Your task to perform on an android device: What's on my calendar tomorrow? Image 0: 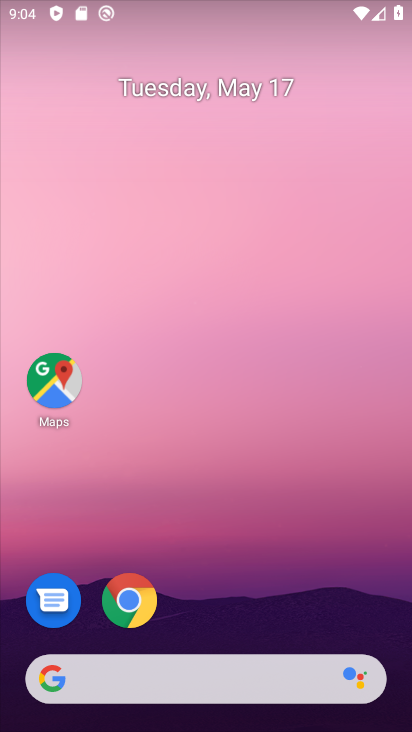
Step 0: click (266, 194)
Your task to perform on an android device: What's on my calendar tomorrow? Image 1: 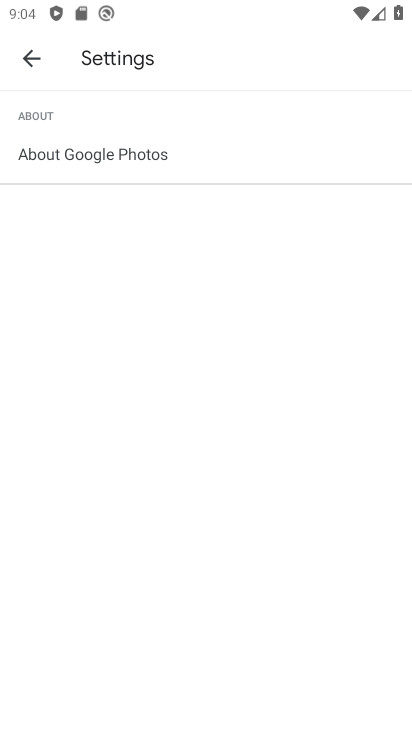
Step 1: press home button
Your task to perform on an android device: What's on my calendar tomorrow? Image 2: 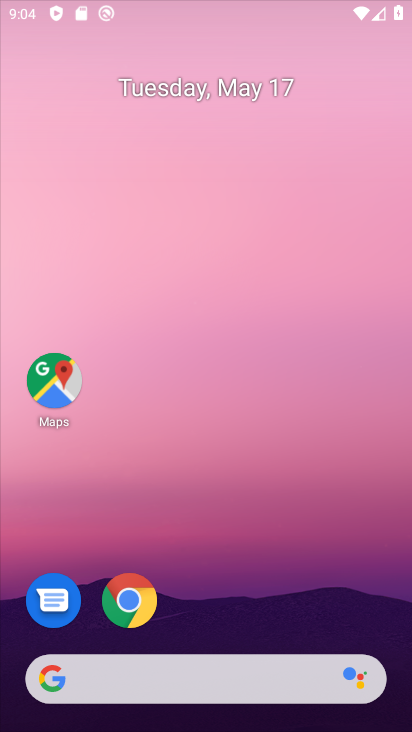
Step 2: drag from (149, 539) to (42, 1)
Your task to perform on an android device: What's on my calendar tomorrow? Image 3: 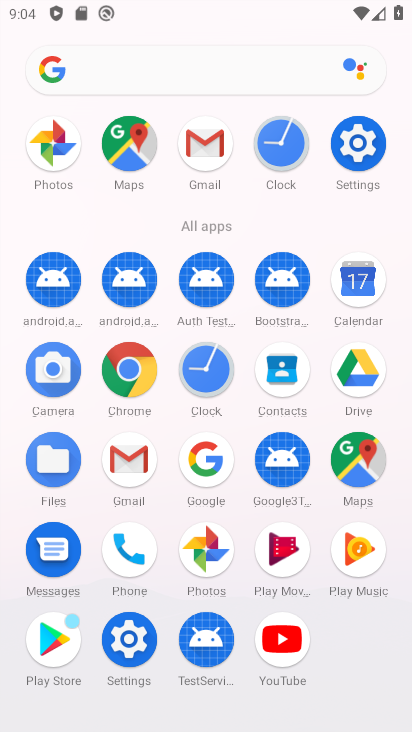
Step 3: click (362, 277)
Your task to perform on an android device: What's on my calendar tomorrow? Image 4: 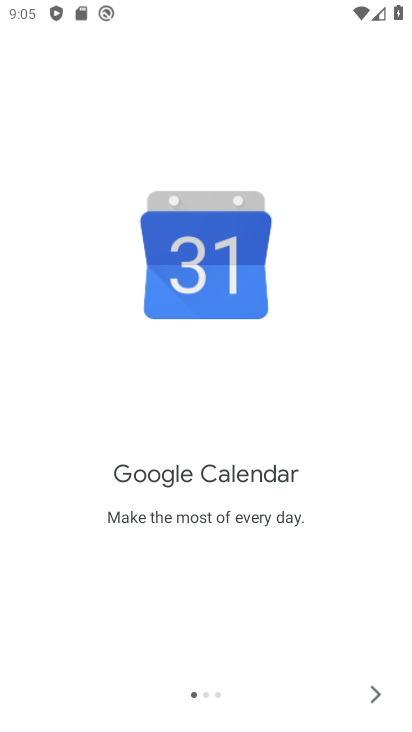
Step 4: click (361, 692)
Your task to perform on an android device: What's on my calendar tomorrow? Image 5: 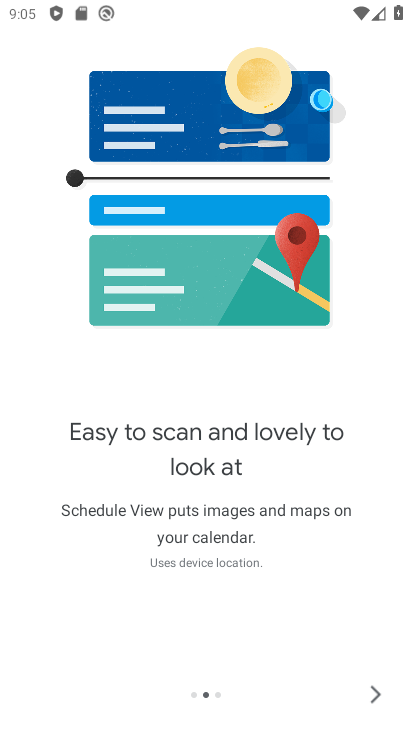
Step 5: click (363, 687)
Your task to perform on an android device: What's on my calendar tomorrow? Image 6: 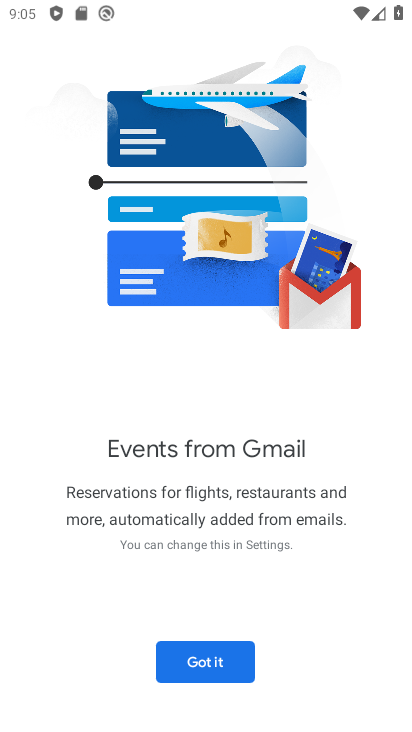
Step 6: click (187, 645)
Your task to perform on an android device: What's on my calendar tomorrow? Image 7: 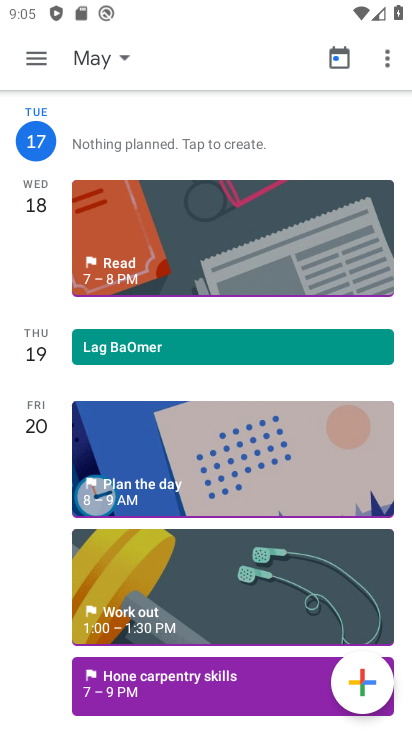
Step 7: drag from (173, 678) to (186, 484)
Your task to perform on an android device: What's on my calendar tomorrow? Image 8: 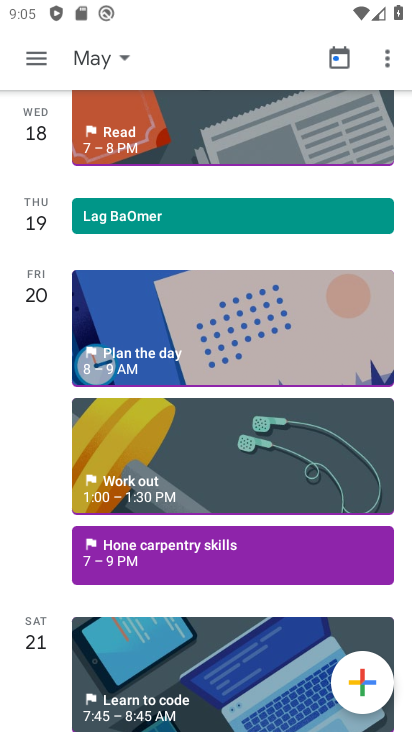
Step 8: drag from (178, 653) to (155, 200)
Your task to perform on an android device: What's on my calendar tomorrow? Image 9: 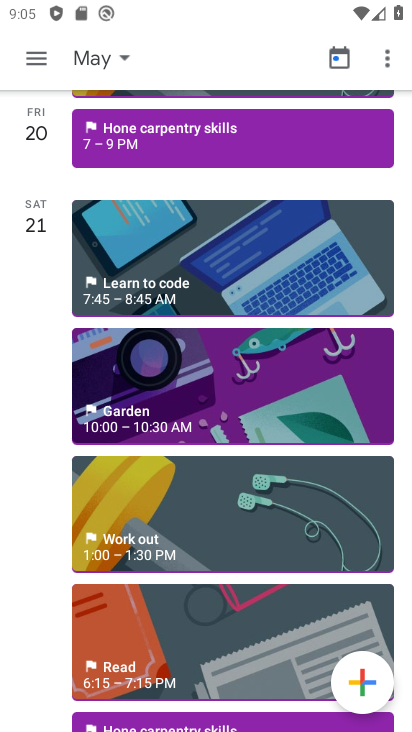
Step 9: click (83, 51)
Your task to perform on an android device: What's on my calendar tomorrow? Image 10: 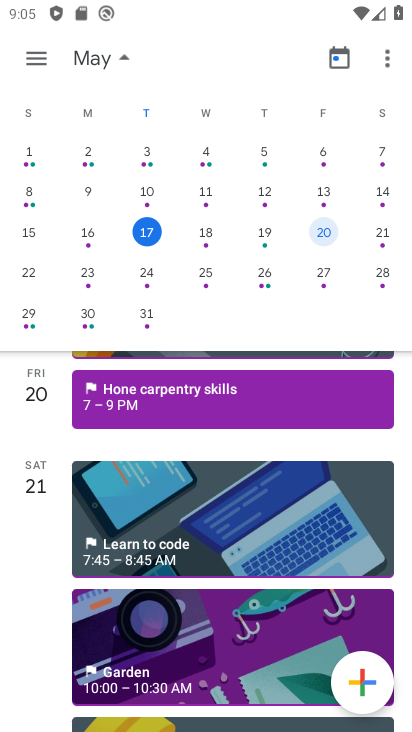
Step 10: click (204, 226)
Your task to perform on an android device: What's on my calendar tomorrow? Image 11: 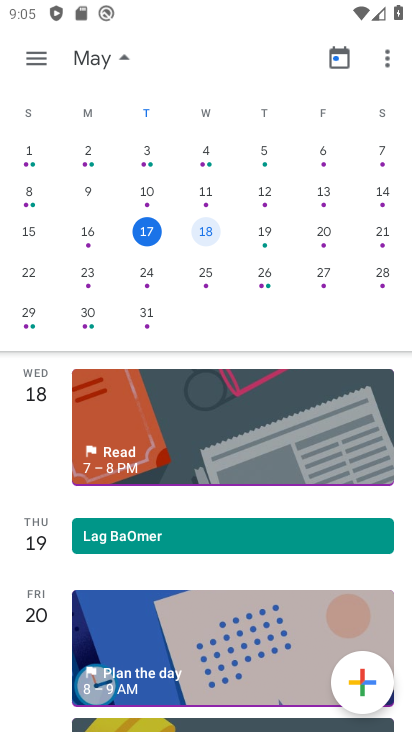
Step 11: task complete